Your task to perform on an android device: Check the news Image 0: 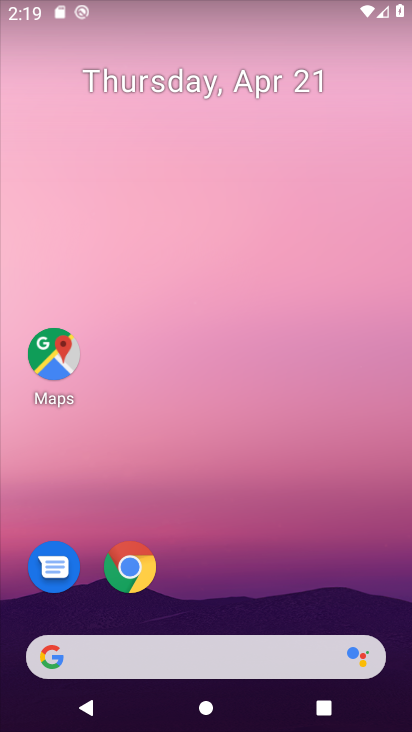
Step 0: drag from (324, 484) to (287, 40)
Your task to perform on an android device: Check the news Image 1: 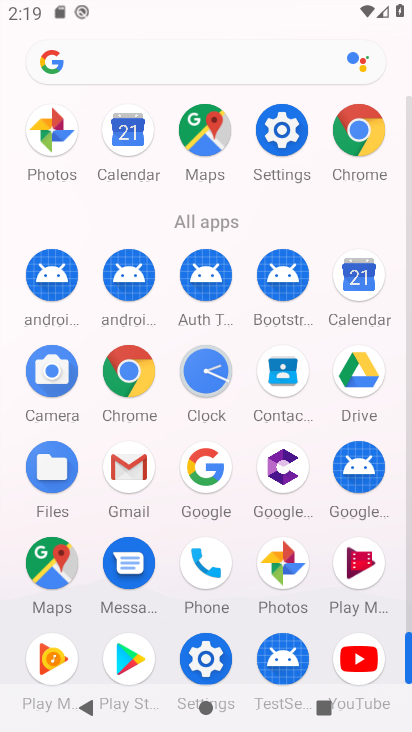
Step 1: click (159, 57)
Your task to perform on an android device: Check the news Image 2: 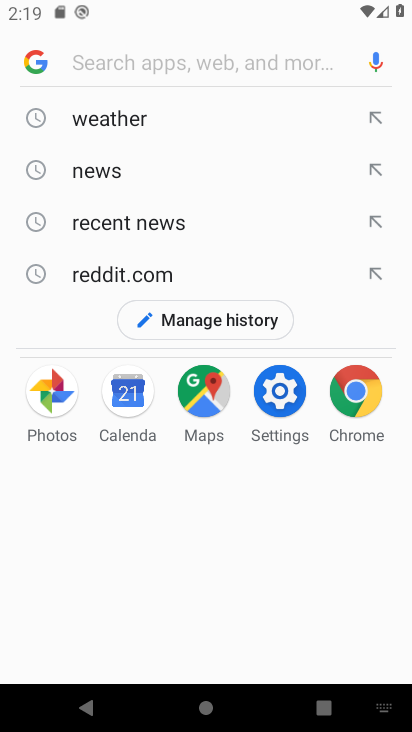
Step 2: click (108, 172)
Your task to perform on an android device: Check the news Image 3: 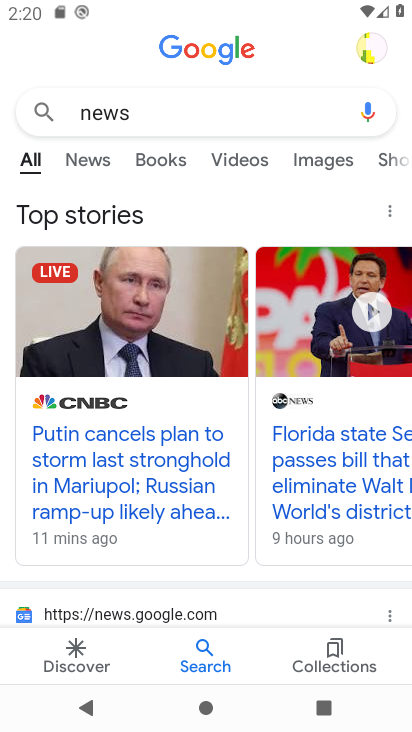
Step 3: task complete